Your task to perform on an android device: Open the web browser Image 0: 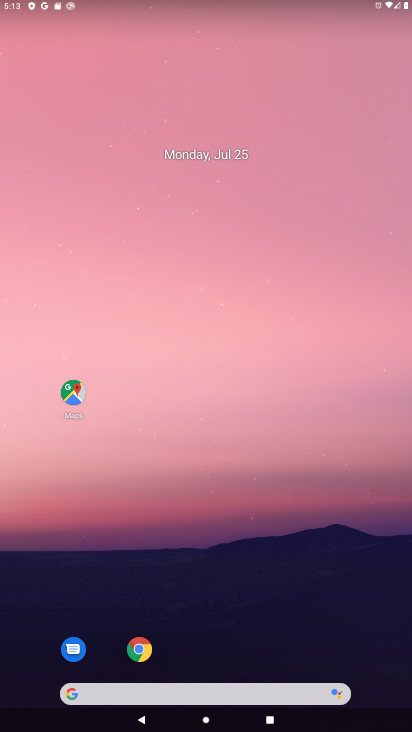
Step 0: drag from (162, 663) to (267, 232)
Your task to perform on an android device: Open the web browser Image 1: 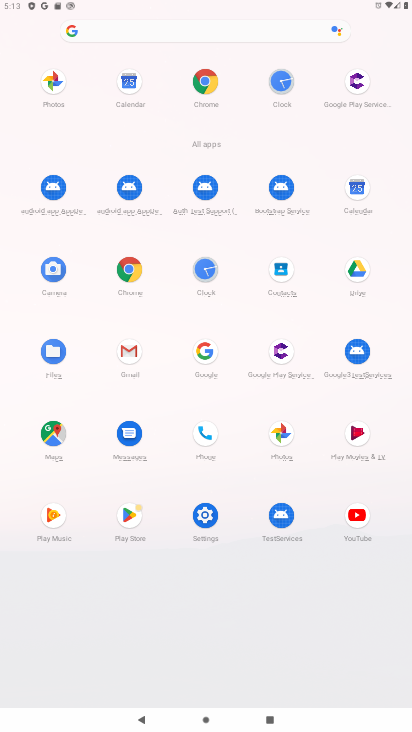
Step 1: click (127, 277)
Your task to perform on an android device: Open the web browser Image 2: 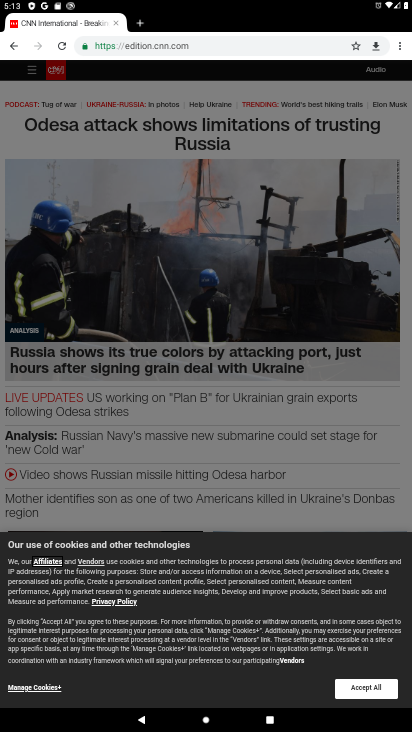
Step 2: click (139, 41)
Your task to perform on an android device: Open the web browser Image 3: 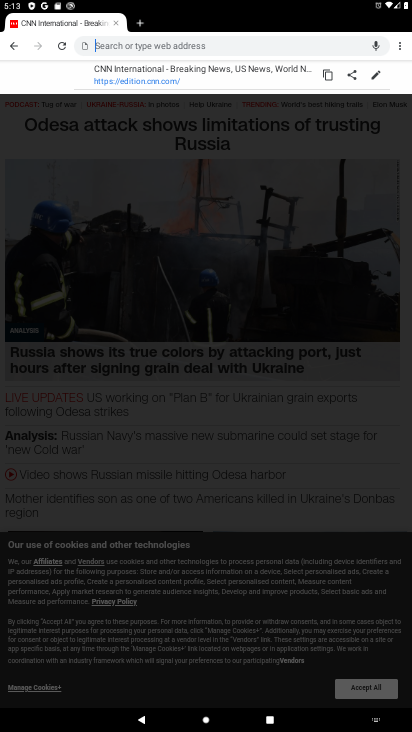
Step 3: task complete